Your task to perform on an android device: open app "Spotify: Music and Podcasts" (install if not already installed) Image 0: 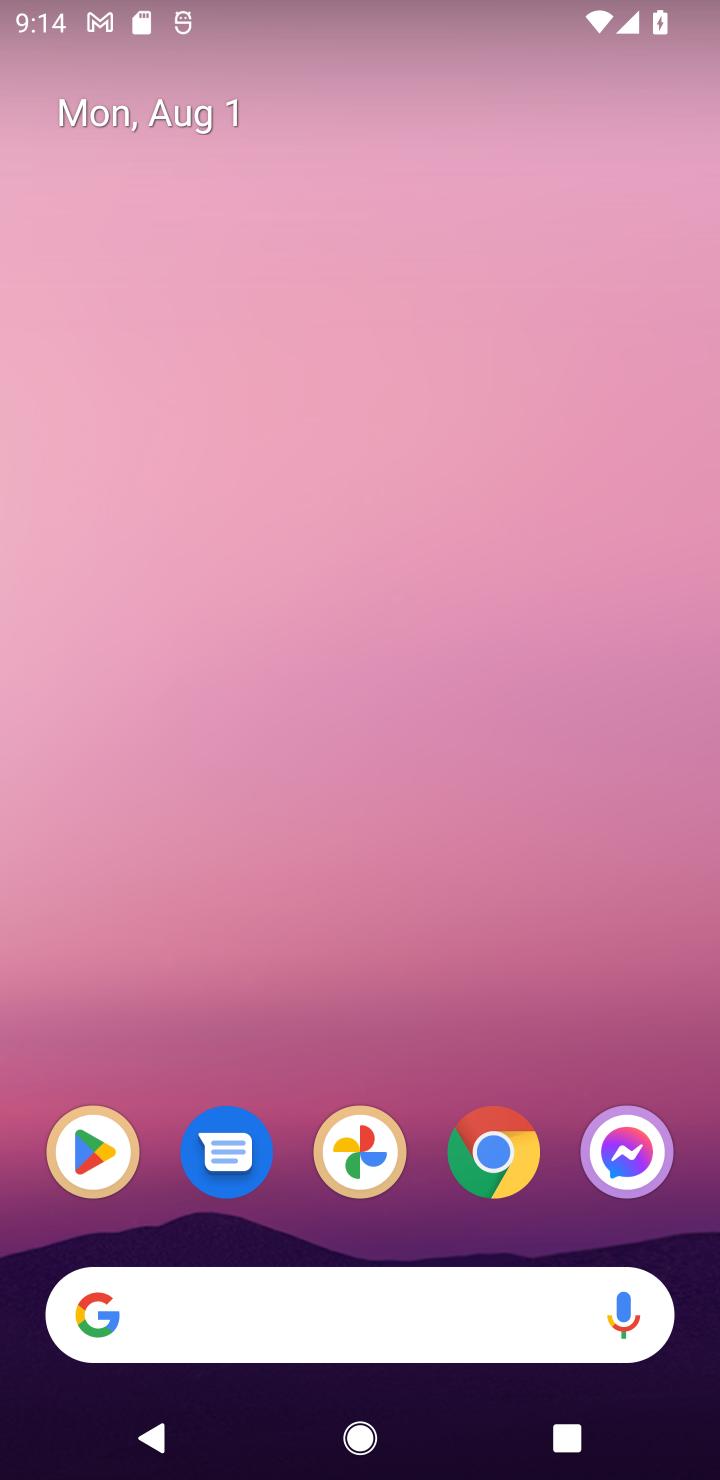
Step 0: drag from (366, 1235) to (504, 32)
Your task to perform on an android device: open app "Spotify: Music and Podcasts" (install if not already installed) Image 1: 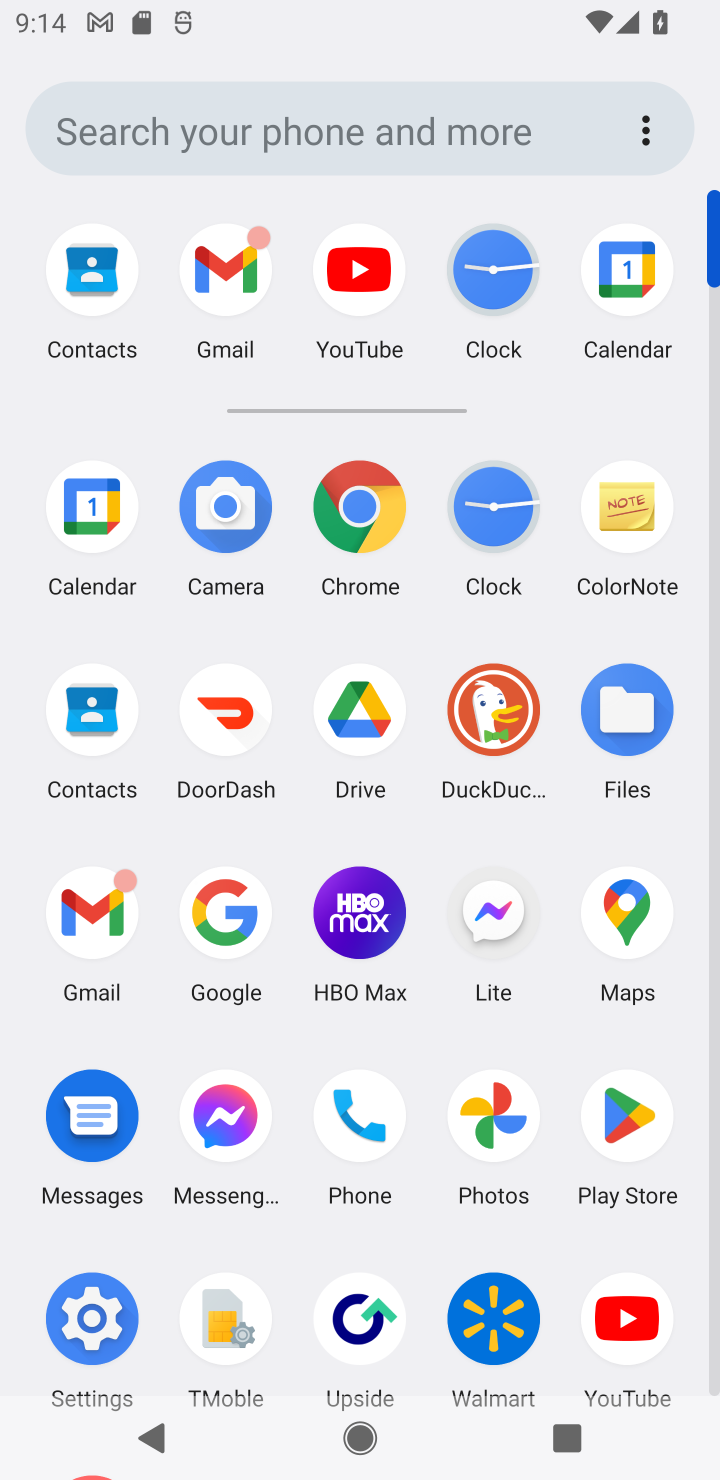
Step 1: click (627, 1111)
Your task to perform on an android device: open app "Spotify: Music and Podcasts" (install if not already installed) Image 2: 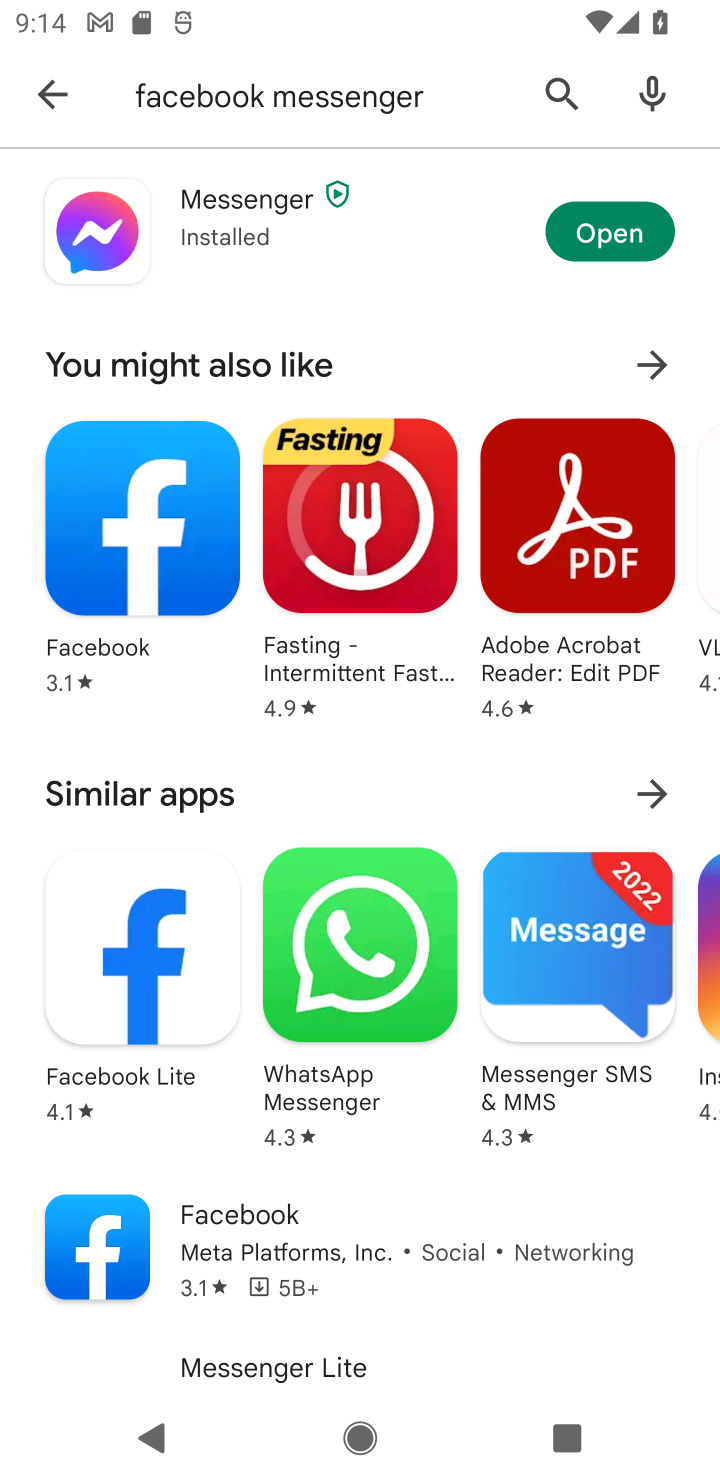
Step 2: click (21, 100)
Your task to perform on an android device: open app "Spotify: Music and Podcasts" (install if not already installed) Image 3: 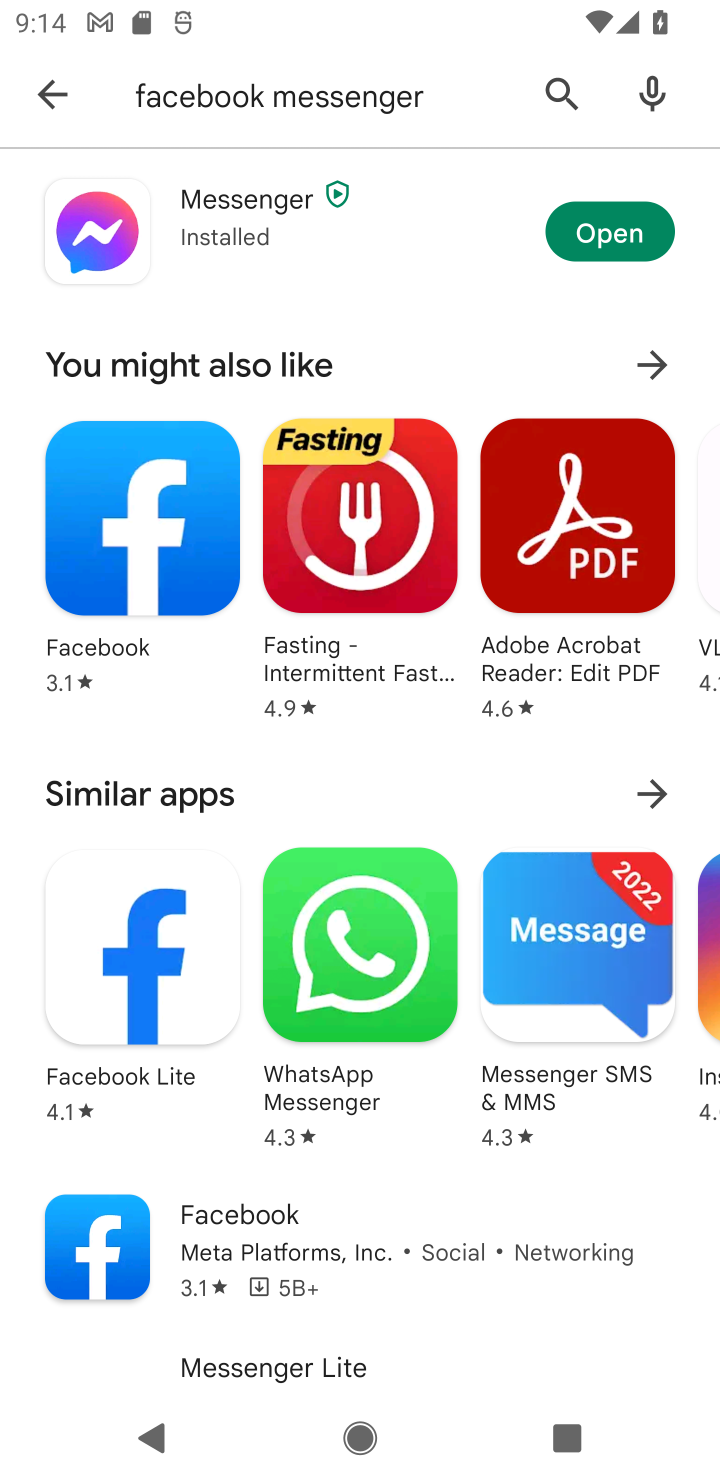
Step 3: click (46, 89)
Your task to perform on an android device: open app "Spotify: Music and Podcasts" (install if not already installed) Image 4: 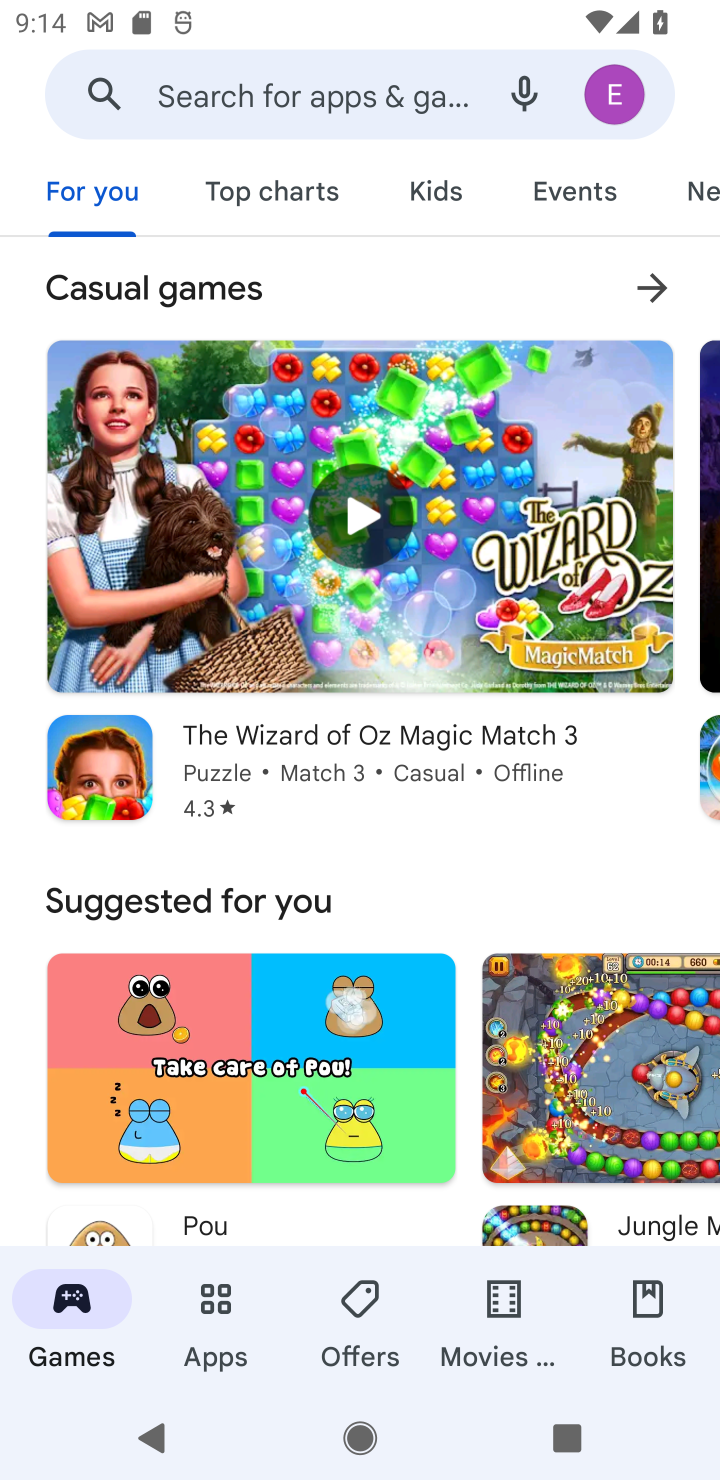
Step 4: click (262, 97)
Your task to perform on an android device: open app "Spotify: Music and Podcasts" (install if not already installed) Image 5: 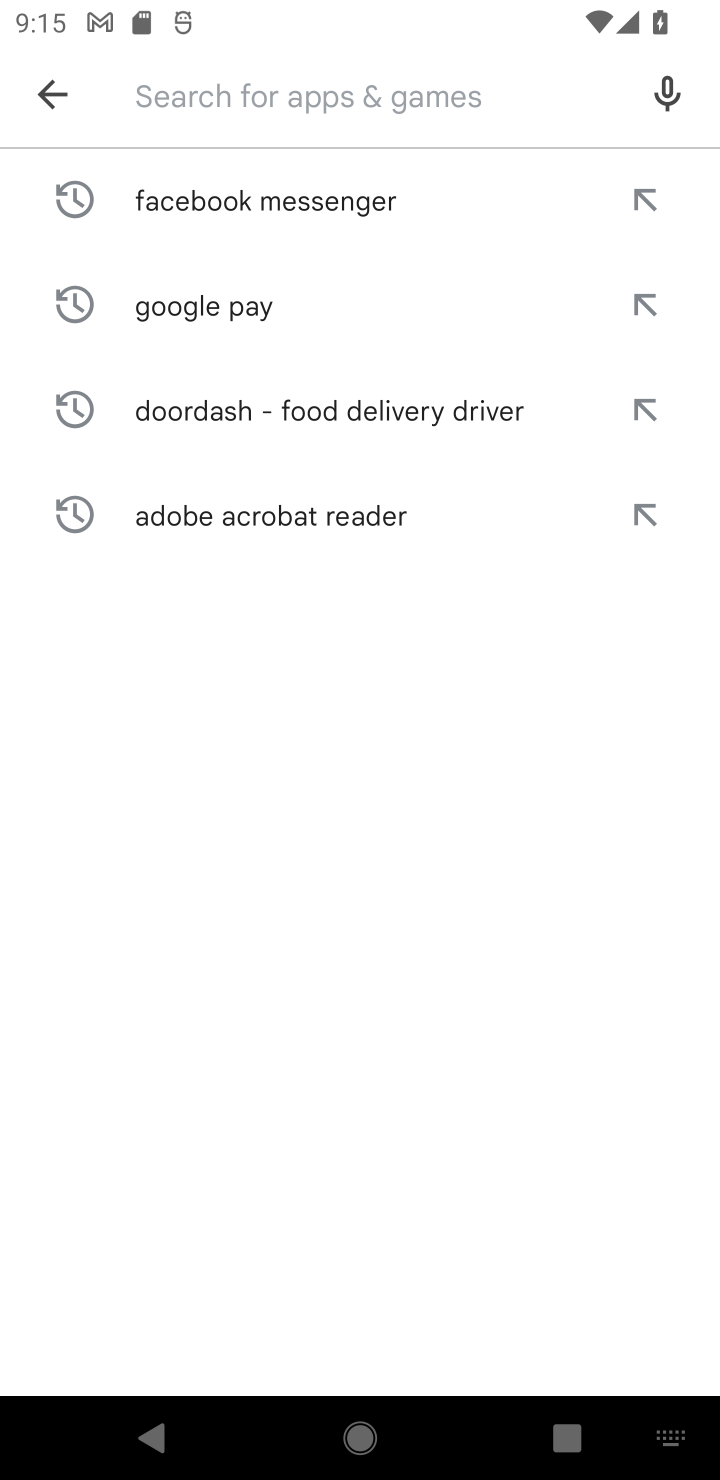
Step 5: type "Spotify: Music and Podcasts"
Your task to perform on an android device: open app "Spotify: Music and Podcasts" (install if not already installed) Image 6: 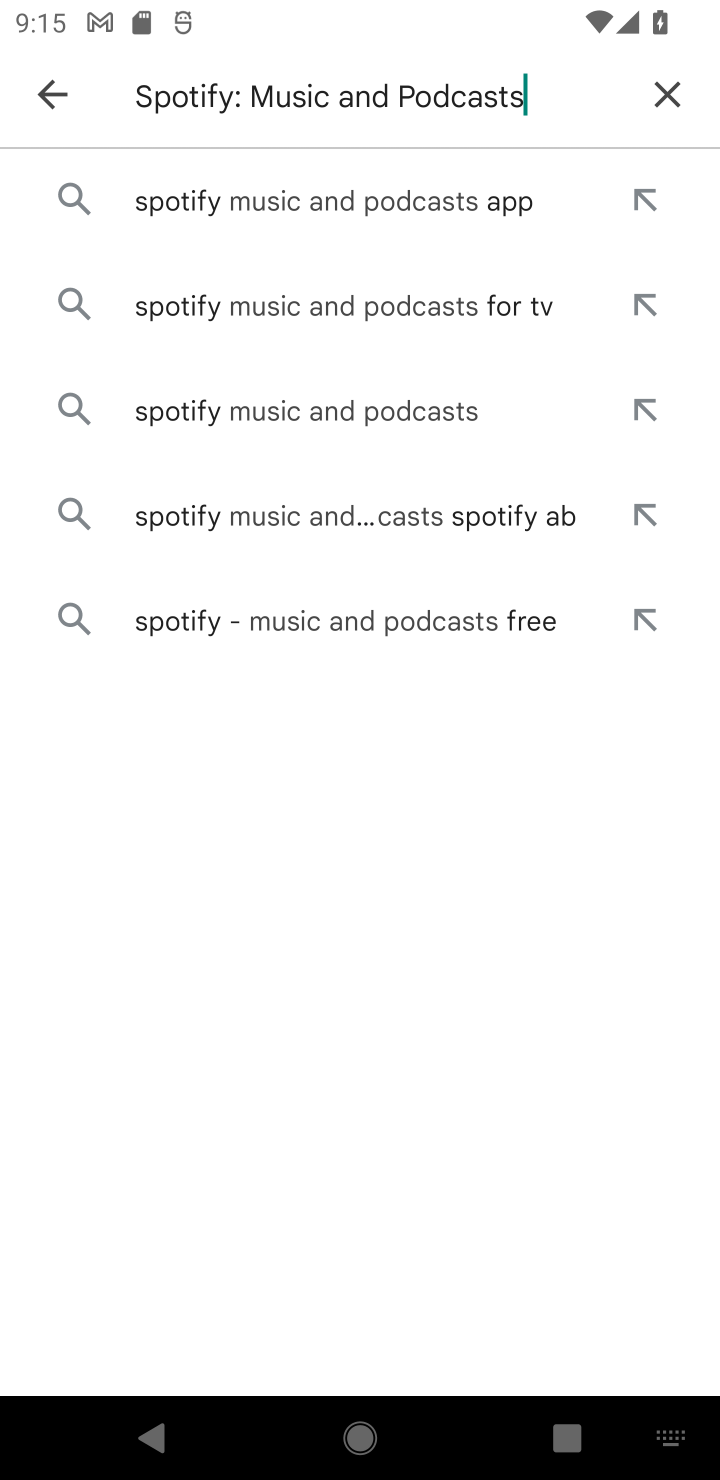
Step 6: click (312, 192)
Your task to perform on an android device: open app "Spotify: Music and Podcasts" (install if not already installed) Image 7: 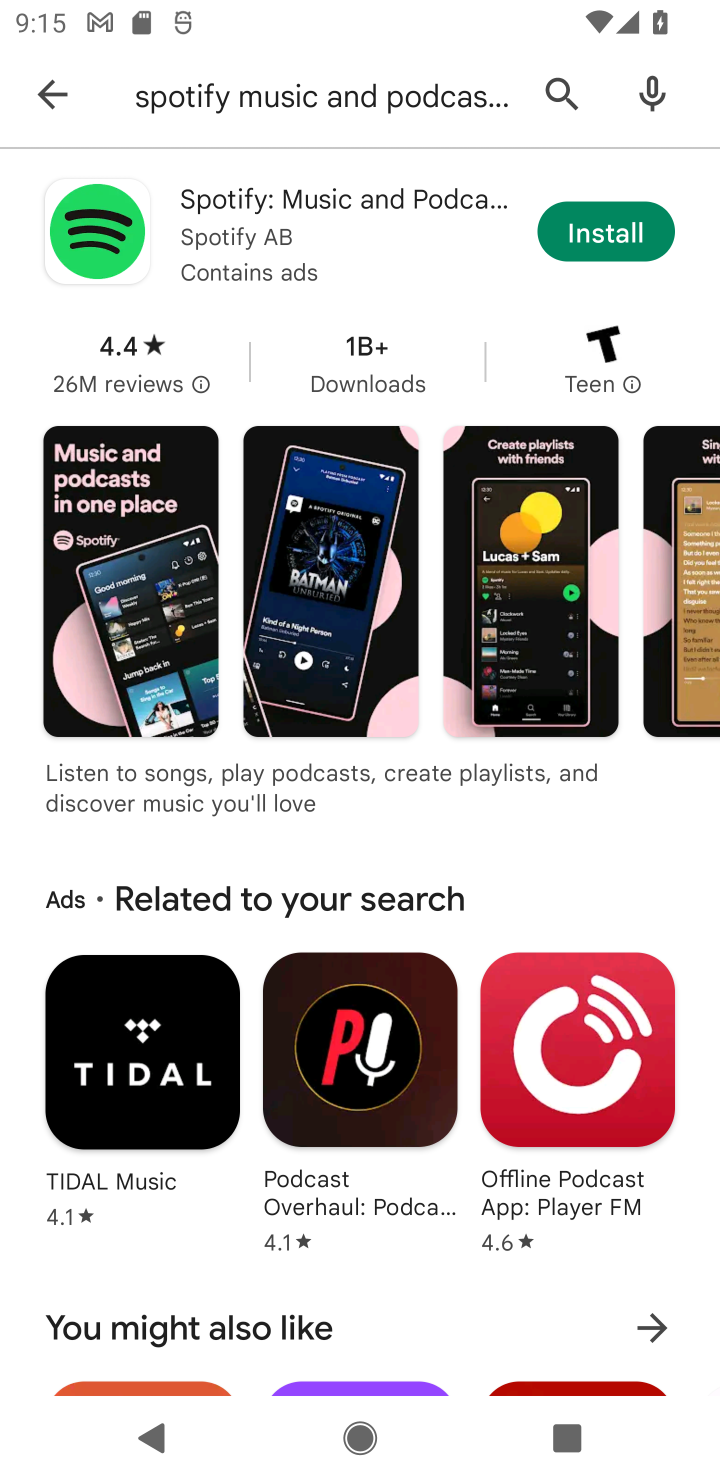
Step 7: click (566, 214)
Your task to perform on an android device: open app "Spotify: Music and Podcasts" (install if not already installed) Image 8: 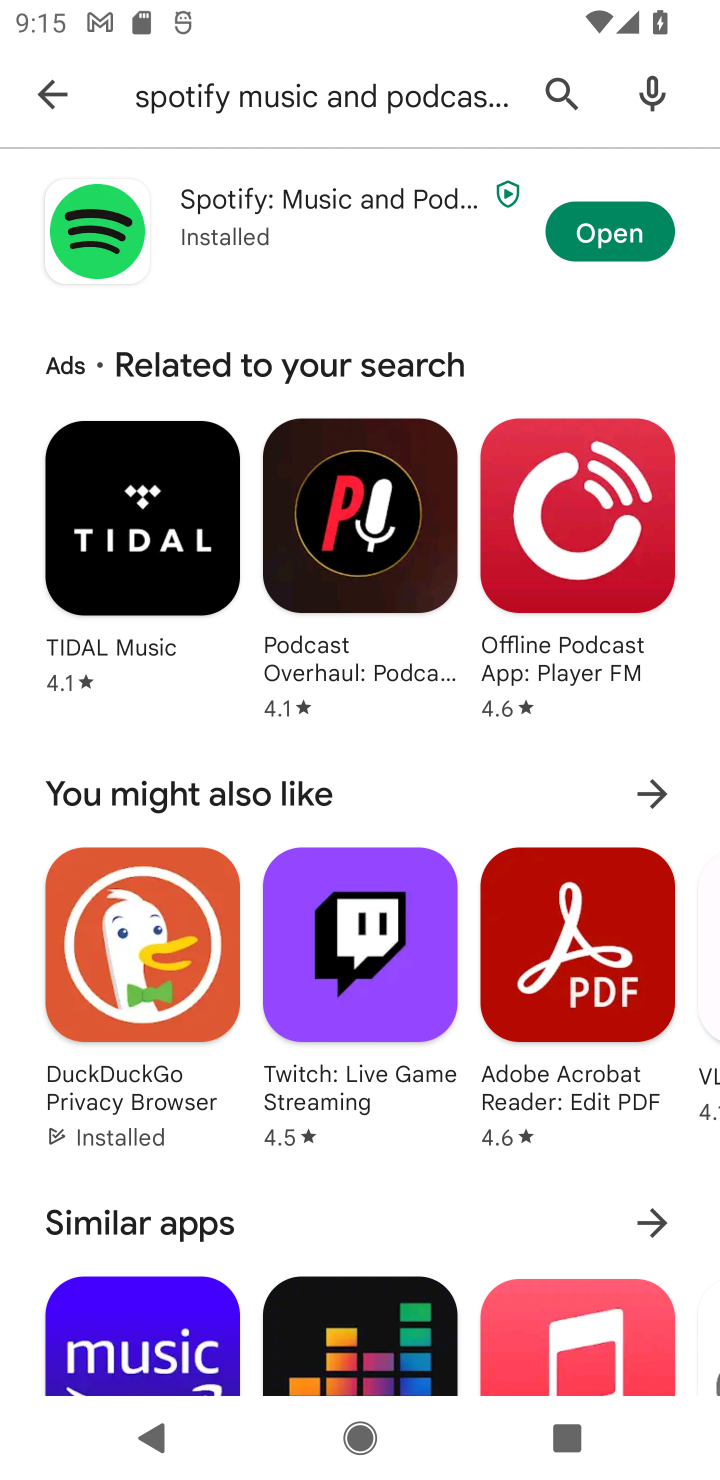
Step 8: click (587, 223)
Your task to perform on an android device: open app "Spotify: Music and Podcasts" (install if not already installed) Image 9: 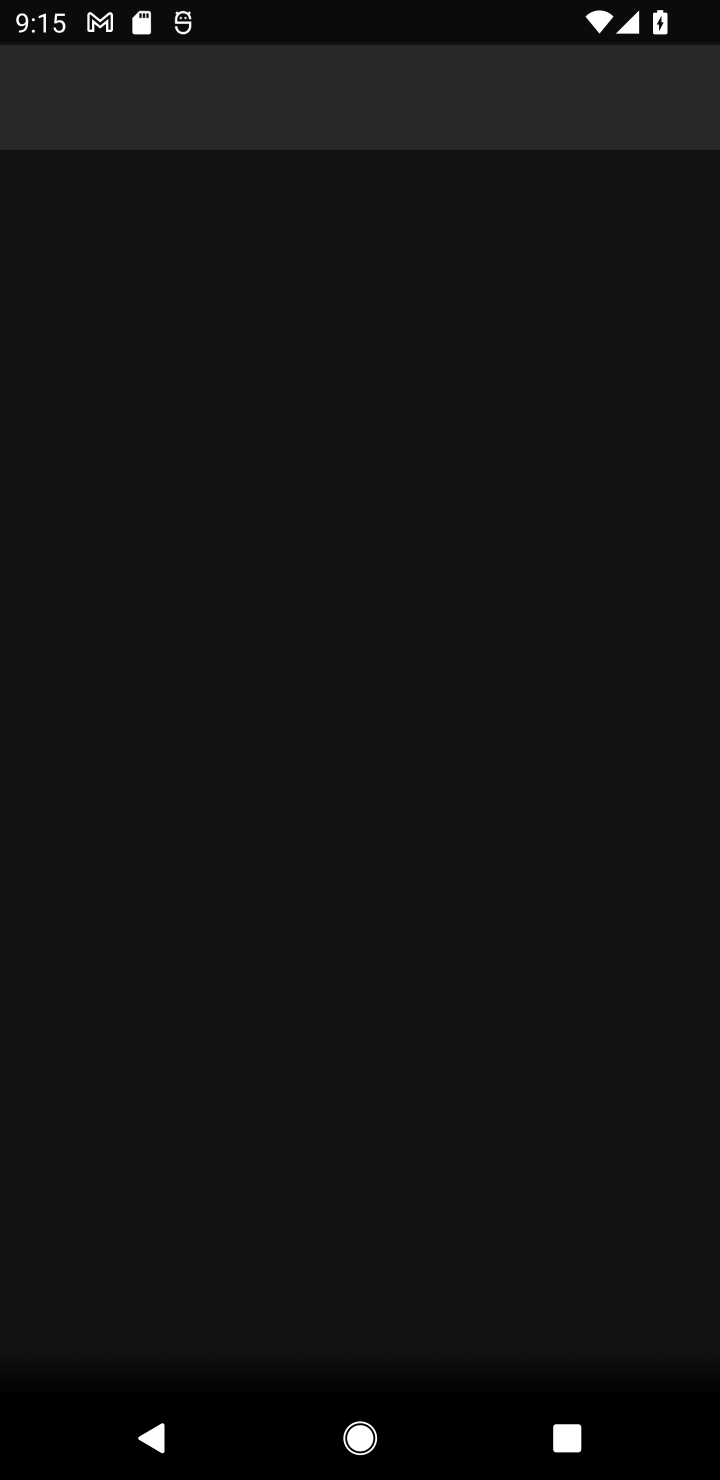
Step 9: task complete